Your task to perform on an android device: turn off location Image 0: 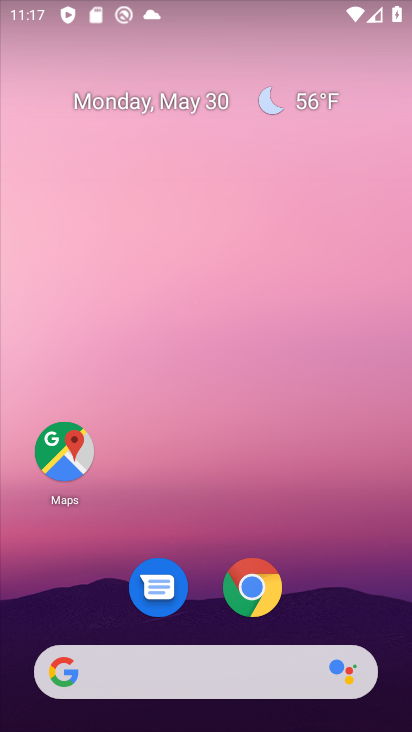
Step 0: drag from (326, 614) to (273, 37)
Your task to perform on an android device: turn off location Image 1: 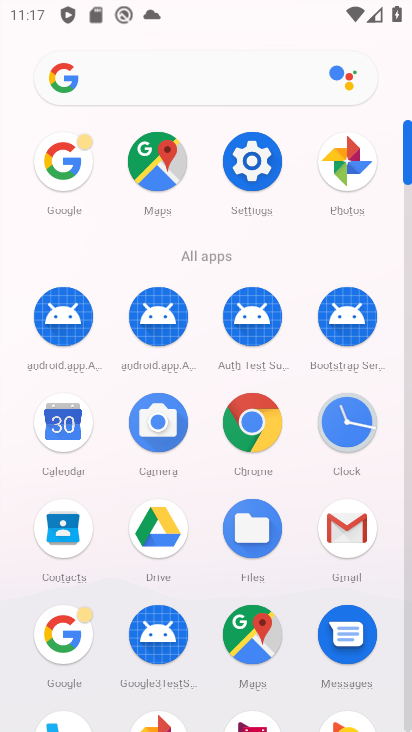
Step 1: click (243, 162)
Your task to perform on an android device: turn off location Image 2: 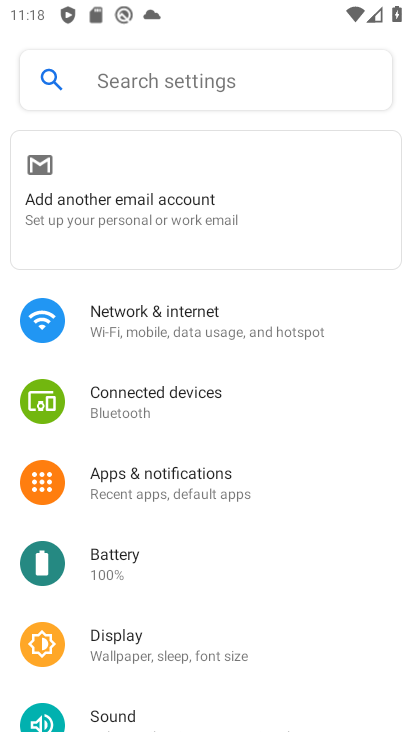
Step 2: drag from (177, 635) to (177, 121)
Your task to perform on an android device: turn off location Image 3: 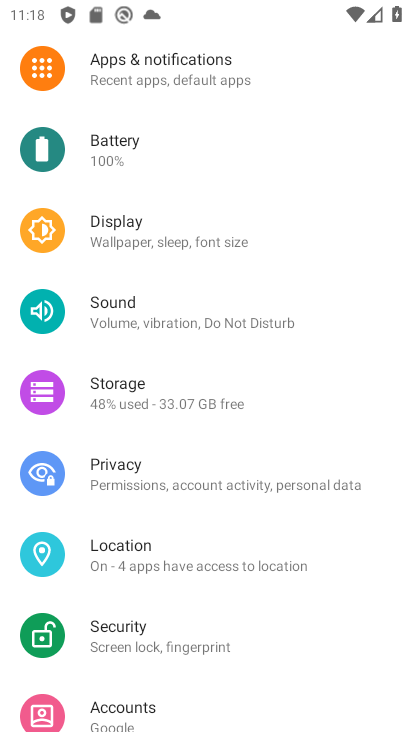
Step 3: click (177, 557)
Your task to perform on an android device: turn off location Image 4: 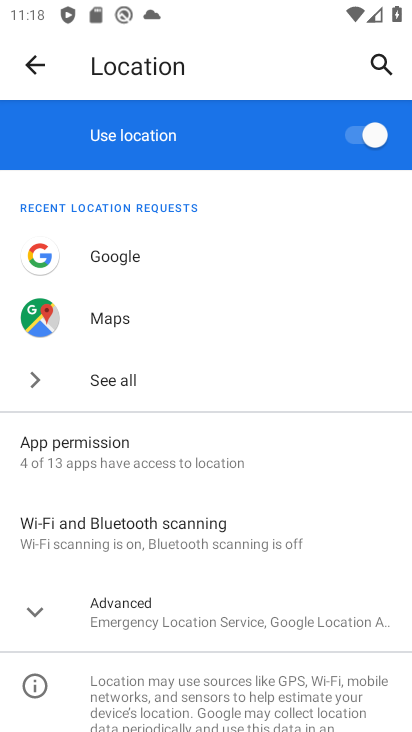
Step 4: click (351, 120)
Your task to perform on an android device: turn off location Image 5: 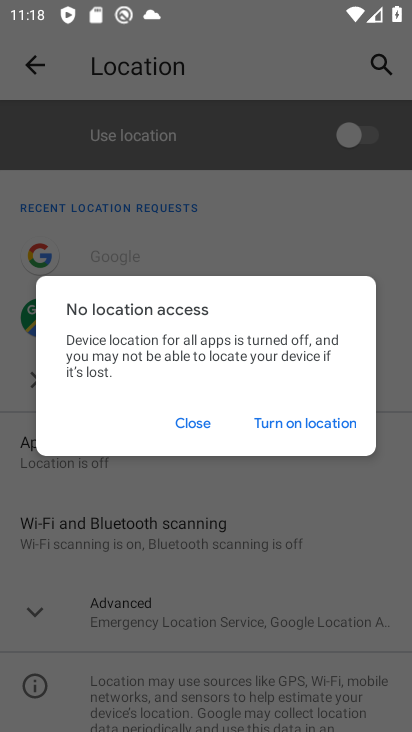
Step 5: task complete